Your task to perform on an android device: Open eBay Image 0: 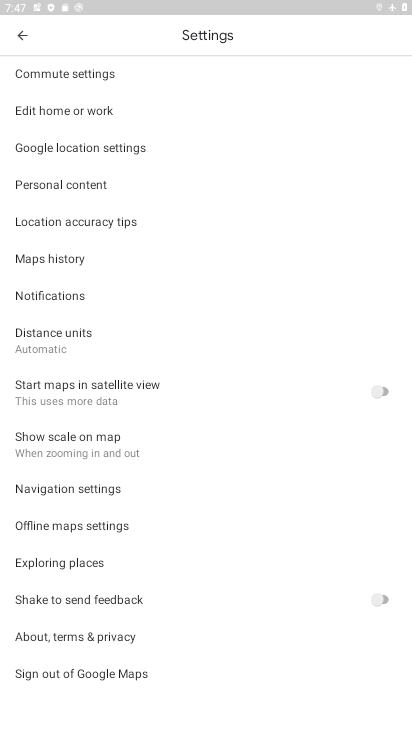
Step 0: press home button
Your task to perform on an android device: Open eBay Image 1: 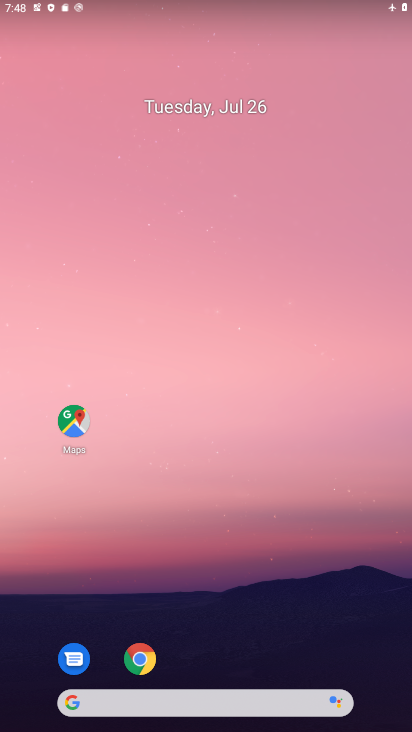
Step 1: click (144, 651)
Your task to perform on an android device: Open eBay Image 2: 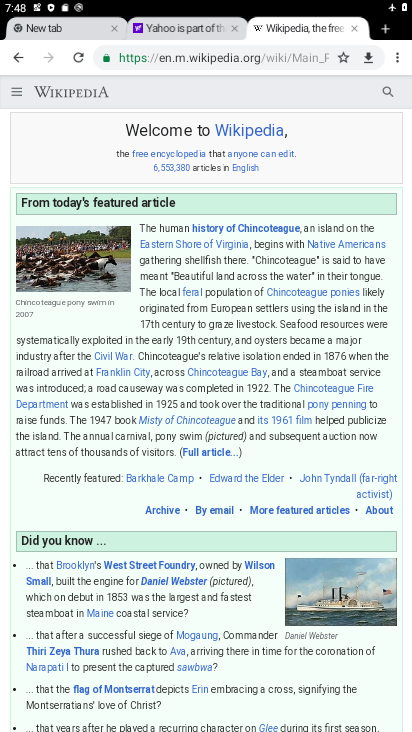
Step 2: click (383, 27)
Your task to perform on an android device: Open eBay Image 3: 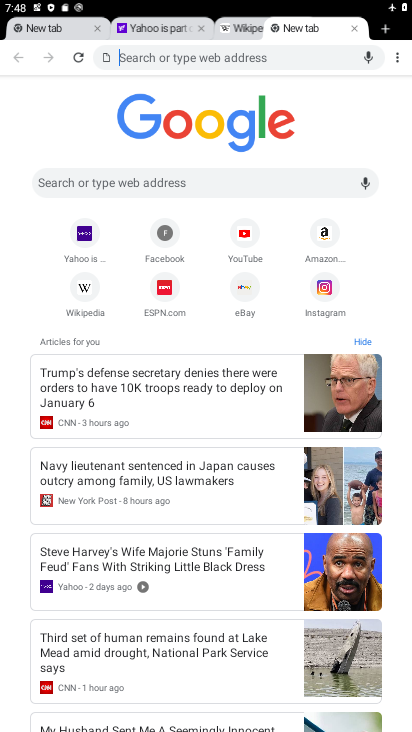
Step 3: click (251, 303)
Your task to perform on an android device: Open eBay Image 4: 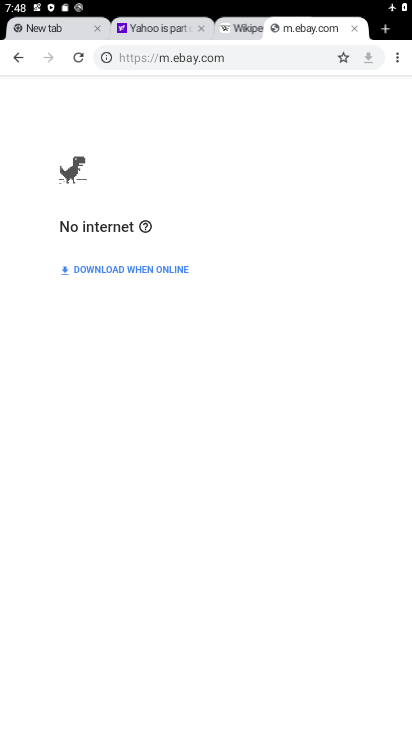
Step 4: task complete